Your task to perform on an android device: turn on javascript in the chrome app Image 0: 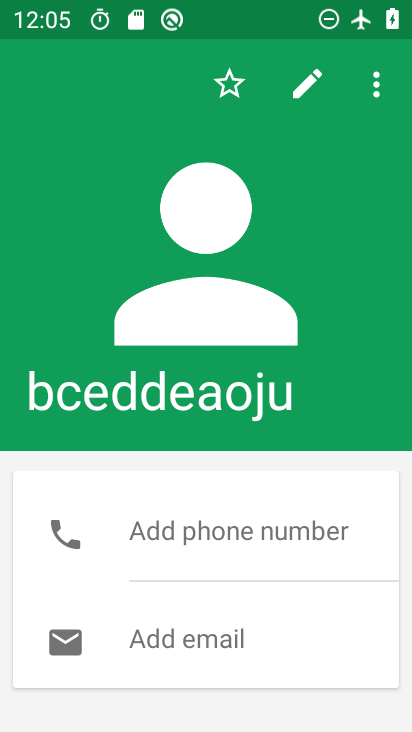
Step 0: press home button
Your task to perform on an android device: turn on javascript in the chrome app Image 1: 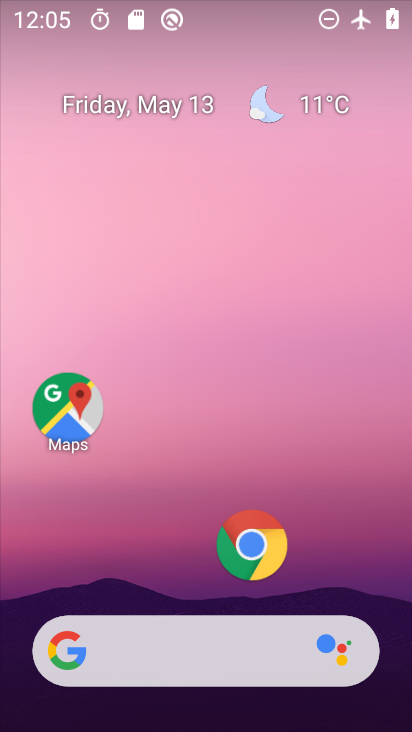
Step 1: click (250, 550)
Your task to perform on an android device: turn on javascript in the chrome app Image 2: 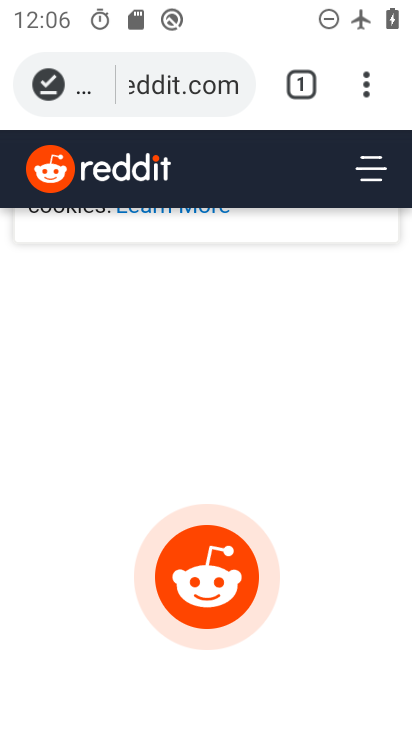
Step 2: click (366, 79)
Your task to perform on an android device: turn on javascript in the chrome app Image 3: 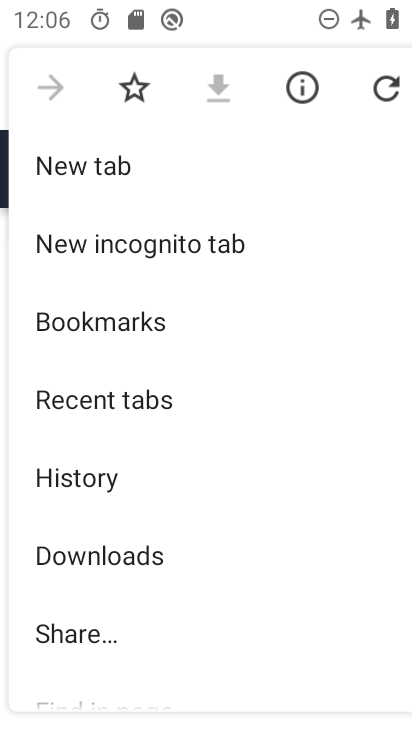
Step 3: drag from (177, 633) to (196, 114)
Your task to perform on an android device: turn on javascript in the chrome app Image 4: 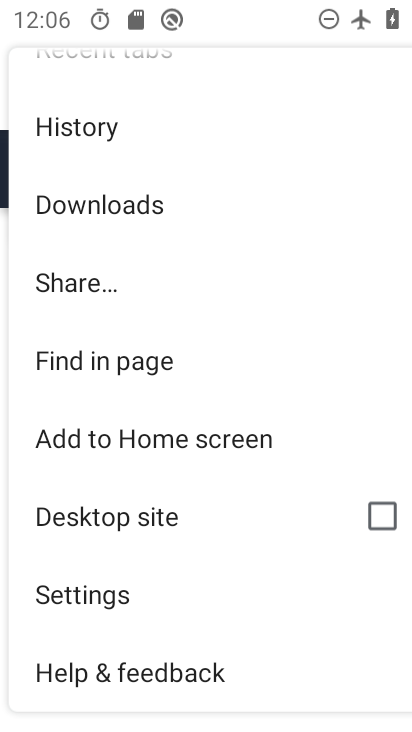
Step 4: click (148, 587)
Your task to perform on an android device: turn on javascript in the chrome app Image 5: 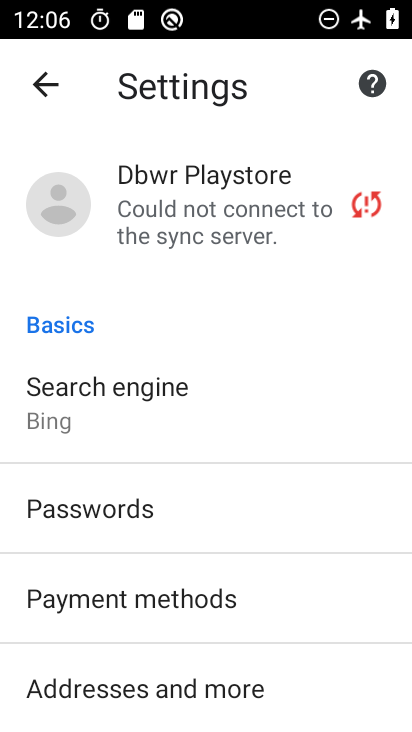
Step 5: drag from (277, 672) to (290, 94)
Your task to perform on an android device: turn on javascript in the chrome app Image 6: 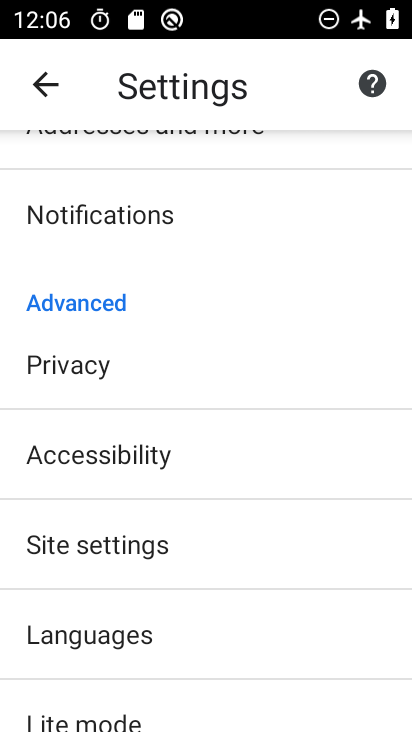
Step 6: click (183, 540)
Your task to perform on an android device: turn on javascript in the chrome app Image 7: 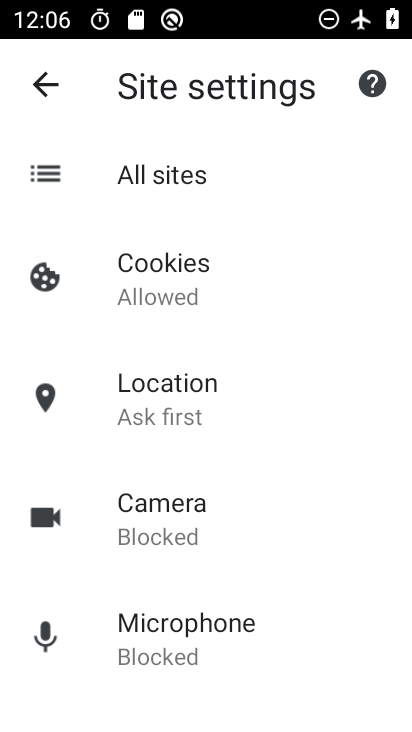
Step 7: drag from (212, 655) to (203, 137)
Your task to perform on an android device: turn on javascript in the chrome app Image 8: 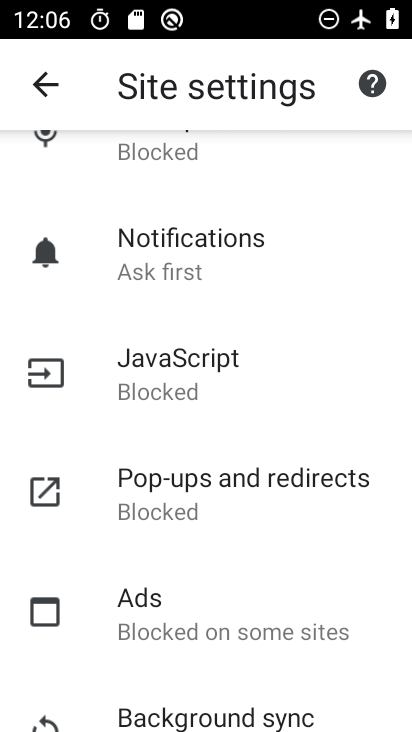
Step 8: click (221, 377)
Your task to perform on an android device: turn on javascript in the chrome app Image 9: 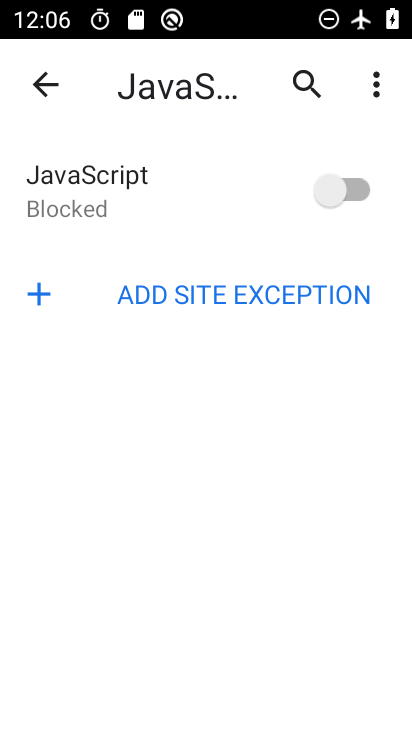
Step 9: click (352, 184)
Your task to perform on an android device: turn on javascript in the chrome app Image 10: 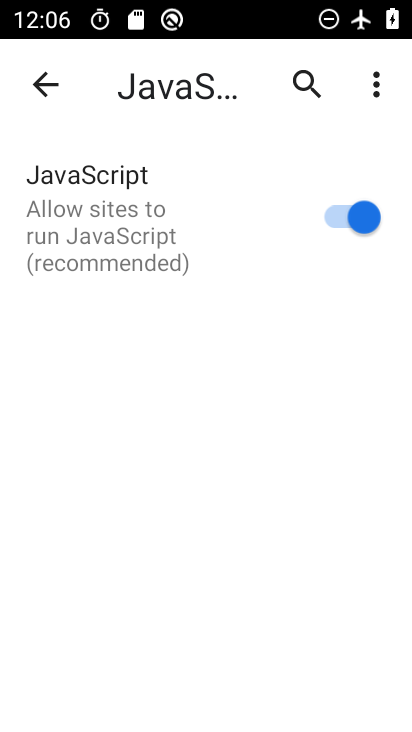
Step 10: task complete